Your task to perform on an android device: Find coffee shops on Maps Image 0: 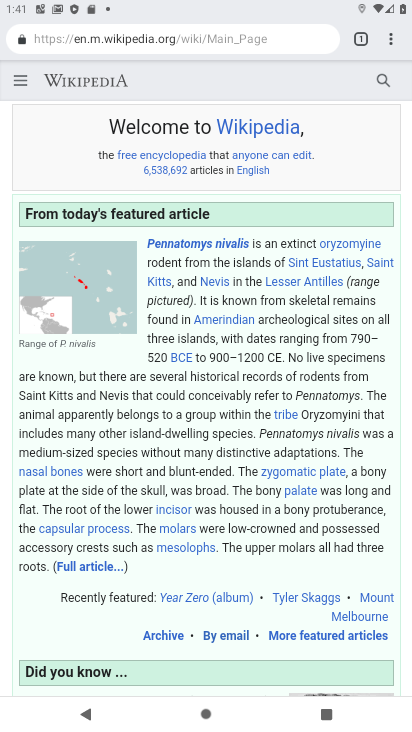
Step 0: press home button
Your task to perform on an android device: Find coffee shops on Maps Image 1: 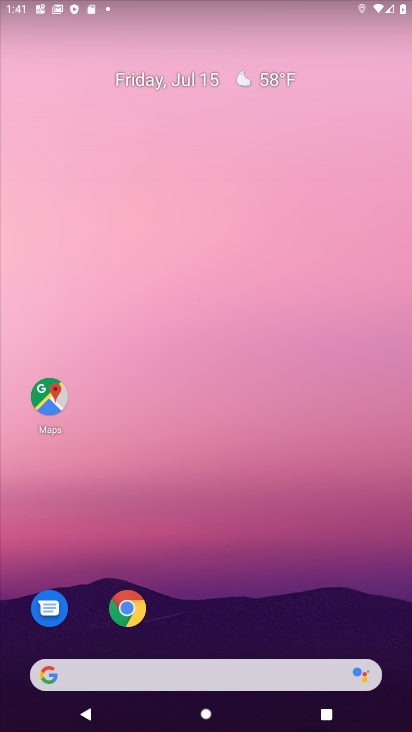
Step 1: drag from (283, 649) to (196, 124)
Your task to perform on an android device: Find coffee shops on Maps Image 2: 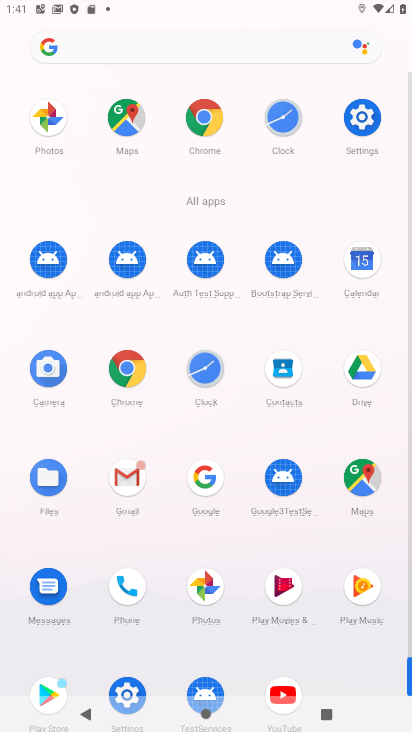
Step 2: click (362, 480)
Your task to perform on an android device: Find coffee shops on Maps Image 3: 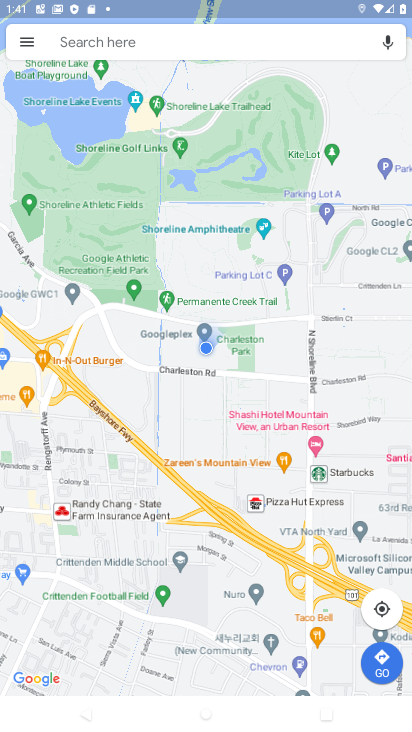
Step 3: click (154, 28)
Your task to perform on an android device: Find coffee shops on Maps Image 4: 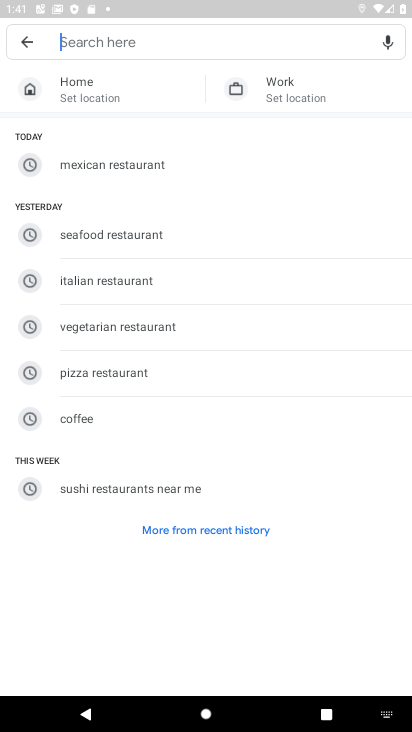
Step 4: type "coffee shop"
Your task to perform on an android device: Find coffee shops on Maps Image 5: 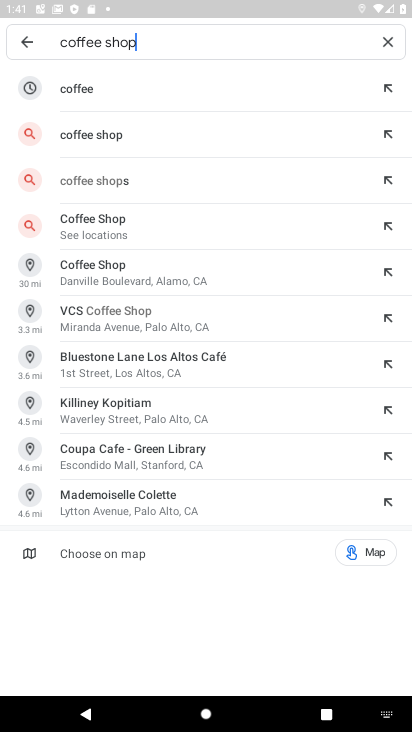
Step 5: click (85, 125)
Your task to perform on an android device: Find coffee shops on Maps Image 6: 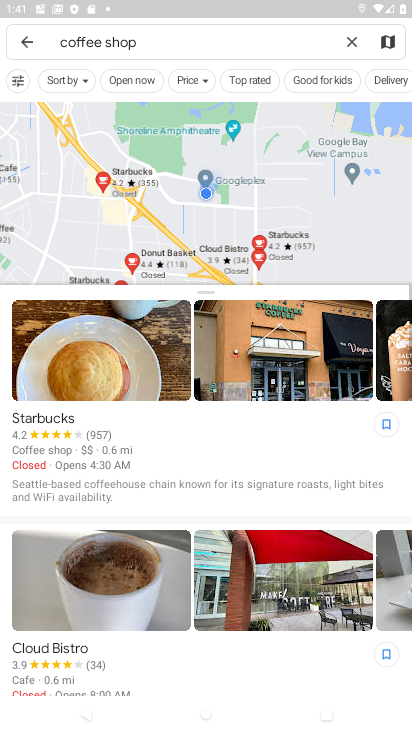
Step 6: task complete